Your task to perform on an android device: Set the phone to "Do not disturb". Image 0: 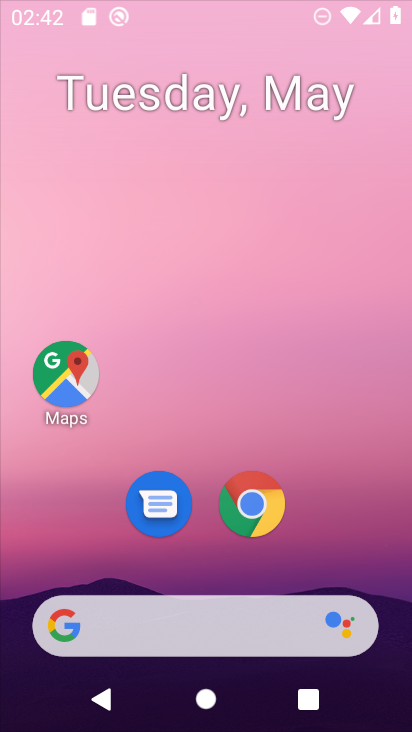
Step 0: click (231, 496)
Your task to perform on an android device: Set the phone to "Do not disturb". Image 1: 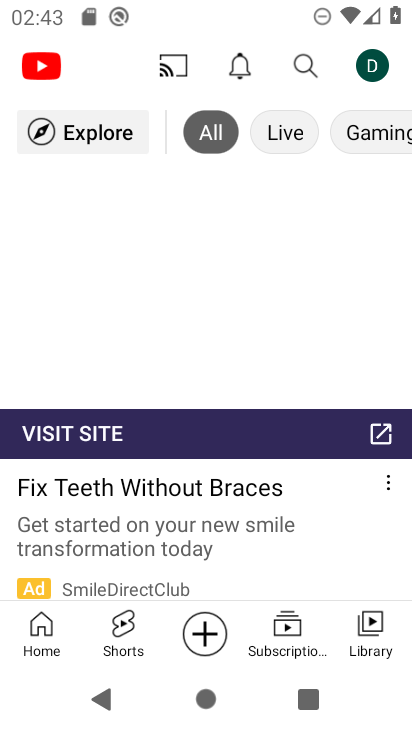
Step 1: press home button
Your task to perform on an android device: Set the phone to "Do not disturb". Image 2: 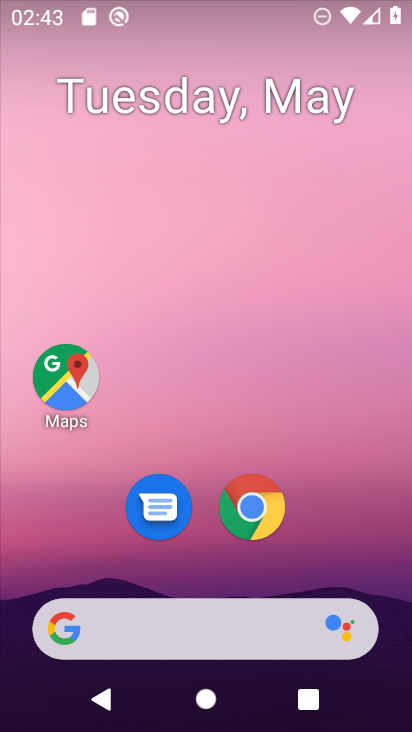
Step 2: drag from (207, 561) to (228, 209)
Your task to perform on an android device: Set the phone to "Do not disturb". Image 3: 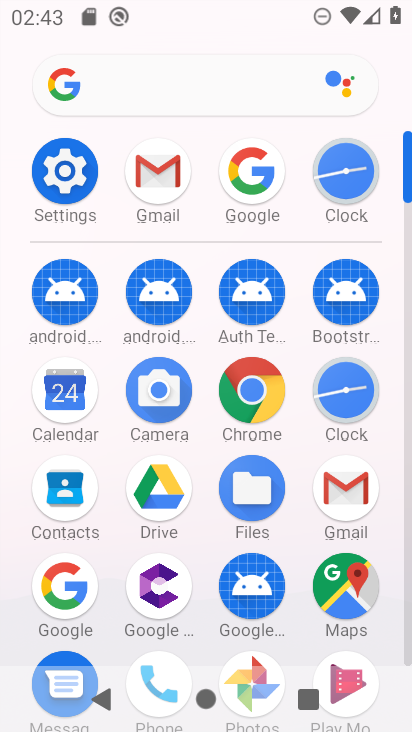
Step 3: click (38, 183)
Your task to perform on an android device: Set the phone to "Do not disturb". Image 4: 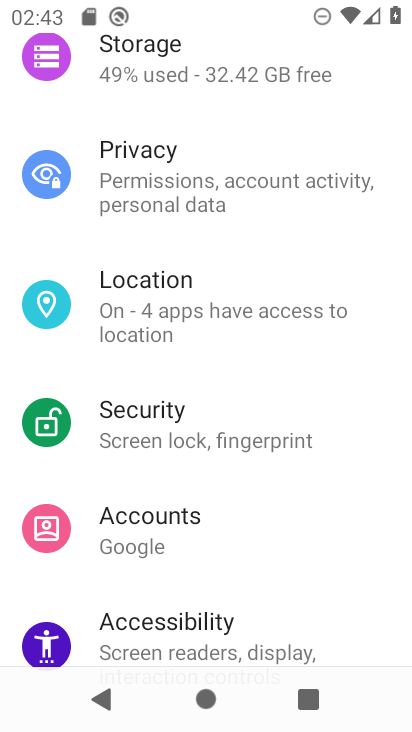
Step 4: drag from (217, 185) to (238, 397)
Your task to perform on an android device: Set the phone to "Do not disturb". Image 5: 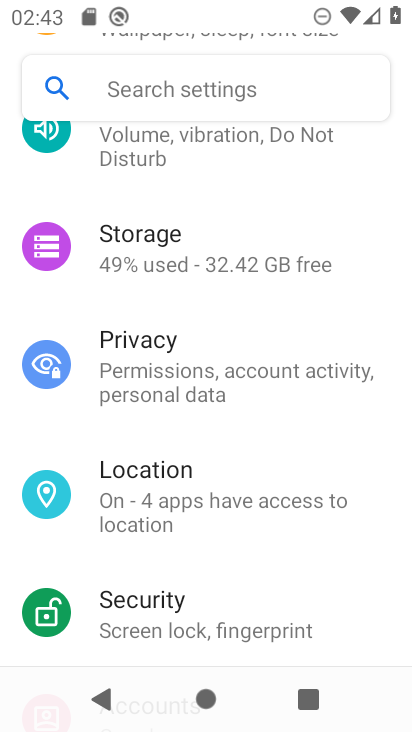
Step 5: drag from (205, 209) to (216, 377)
Your task to perform on an android device: Set the phone to "Do not disturb". Image 6: 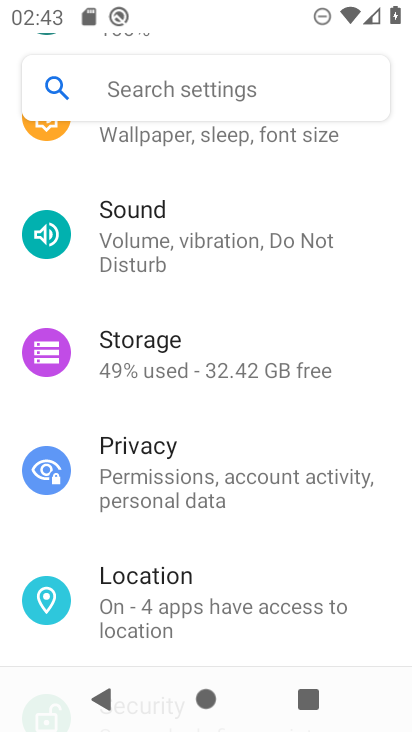
Step 6: click (195, 266)
Your task to perform on an android device: Set the phone to "Do not disturb". Image 7: 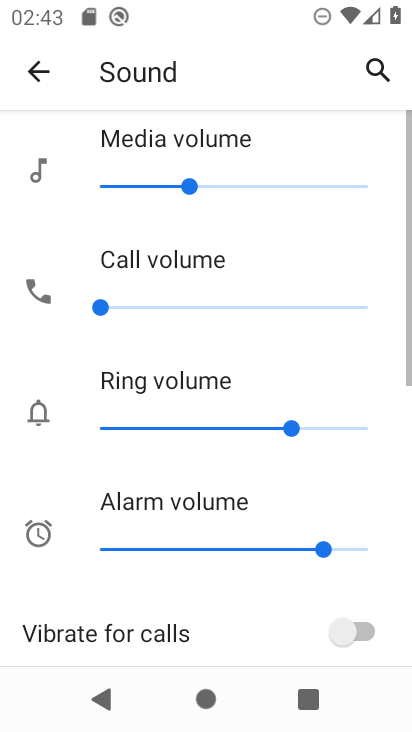
Step 7: drag from (203, 563) to (235, 281)
Your task to perform on an android device: Set the phone to "Do not disturb". Image 8: 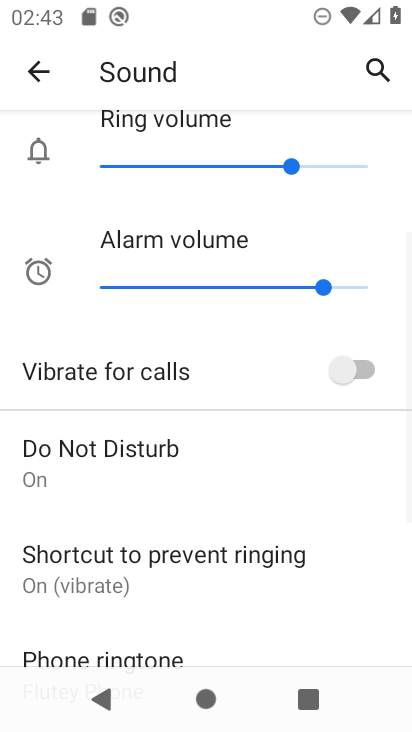
Step 8: click (155, 439)
Your task to perform on an android device: Set the phone to "Do not disturb". Image 9: 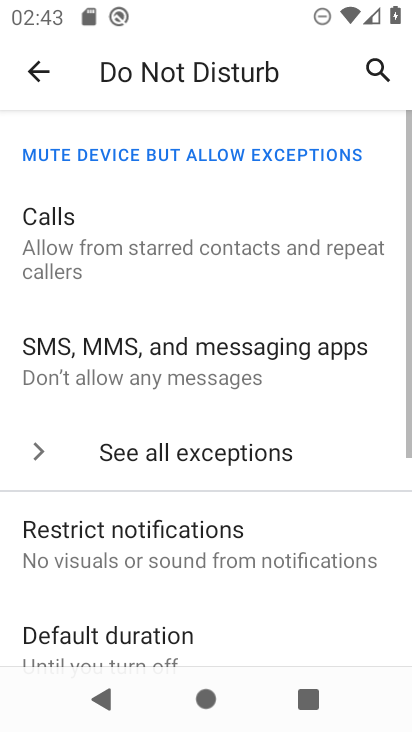
Step 9: task complete